Your task to perform on an android device: Check the news Image 0: 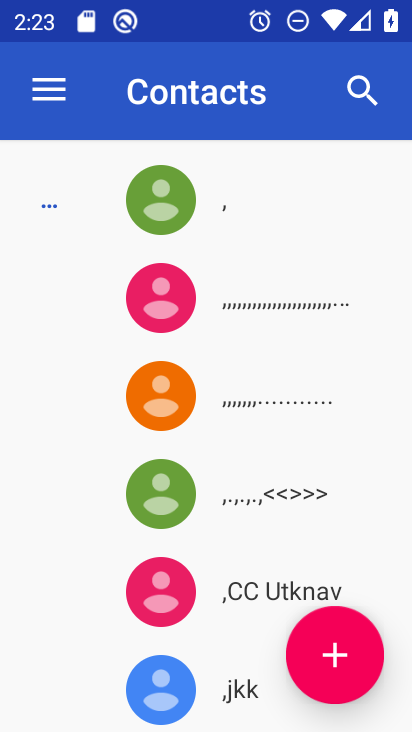
Step 0: press home button
Your task to perform on an android device: Check the news Image 1: 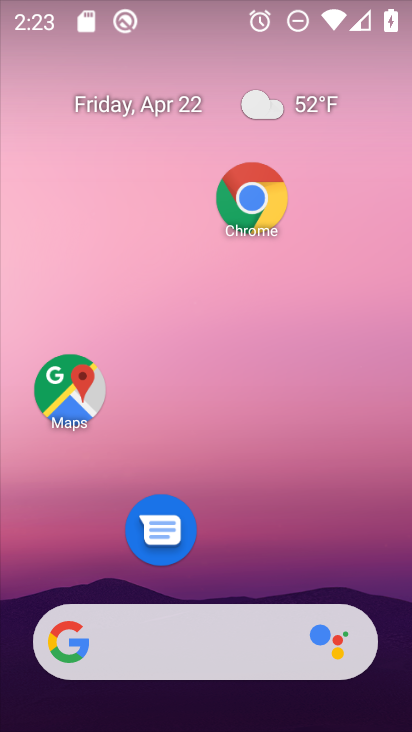
Step 1: task complete